Your task to perform on an android device: Open Youtube and go to "Your channel" Image 0: 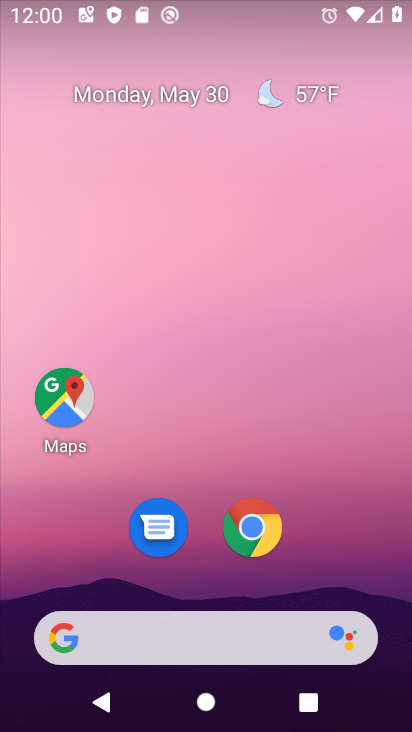
Step 0: drag from (220, 586) to (222, 73)
Your task to perform on an android device: Open Youtube and go to "Your channel" Image 1: 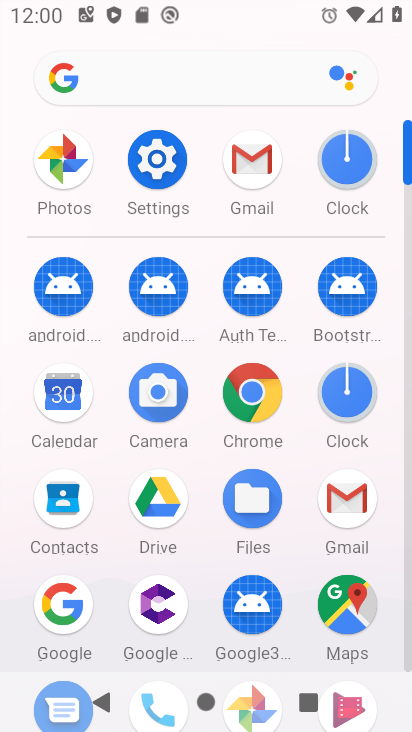
Step 1: drag from (204, 594) to (237, 243)
Your task to perform on an android device: Open Youtube and go to "Your channel" Image 2: 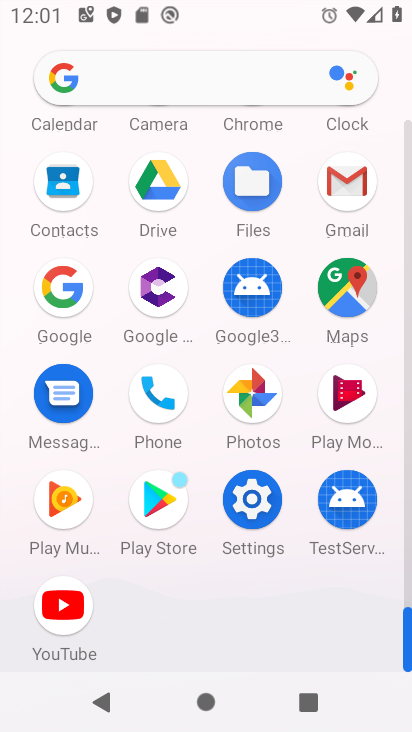
Step 2: click (64, 612)
Your task to perform on an android device: Open Youtube and go to "Your channel" Image 3: 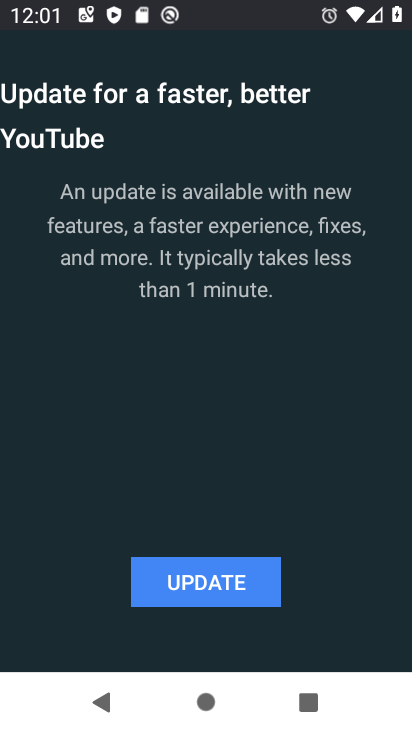
Step 3: click (242, 611)
Your task to perform on an android device: Open Youtube and go to "Your channel" Image 4: 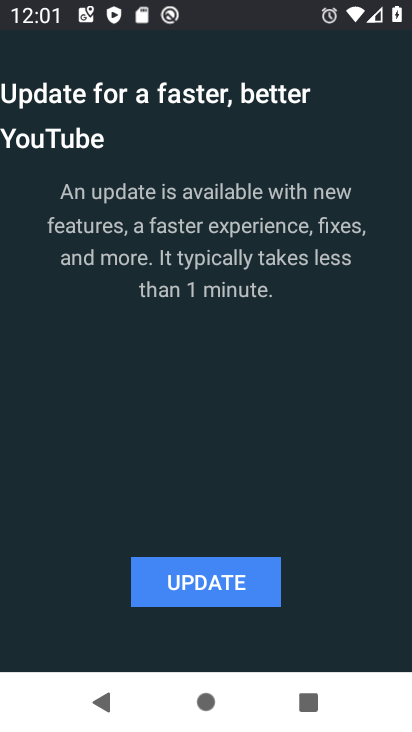
Step 4: click (226, 584)
Your task to perform on an android device: Open Youtube and go to "Your channel" Image 5: 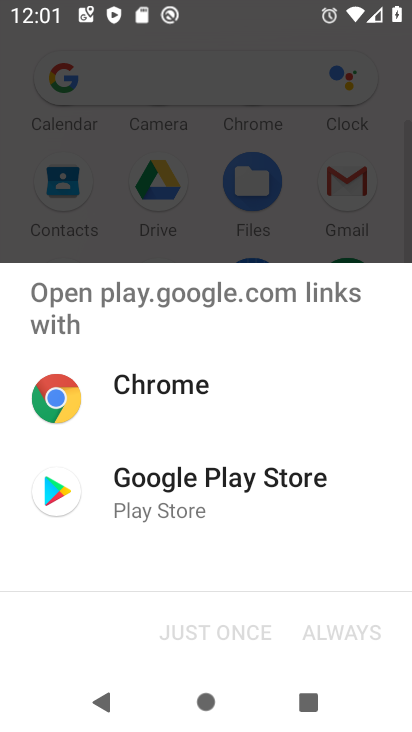
Step 5: click (167, 512)
Your task to perform on an android device: Open Youtube and go to "Your channel" Image 6: 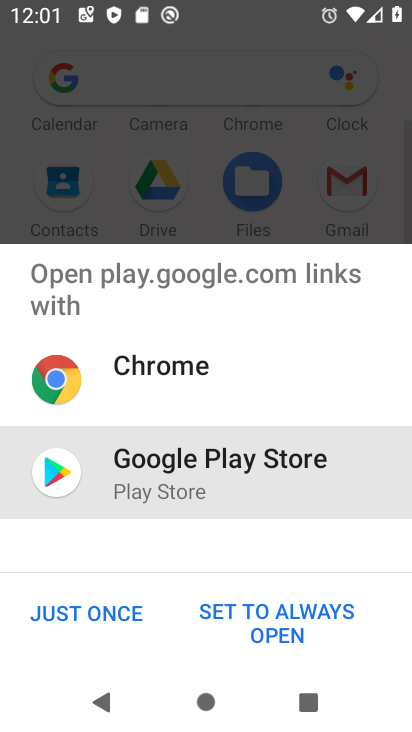
Step 6: click (167, 512)
Your task to perform on an android device: Open Youtube and go to "Your channel" Image 7: 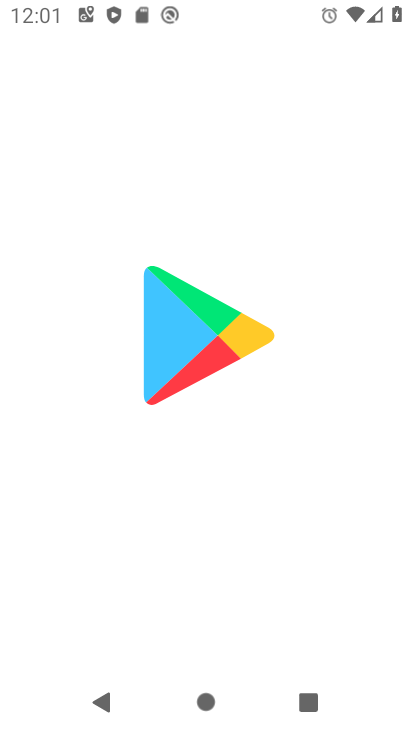
Step 7: click (113, 637)
Your task to perform on an android device: Open Youtube and go to "Your channel" Image 8: 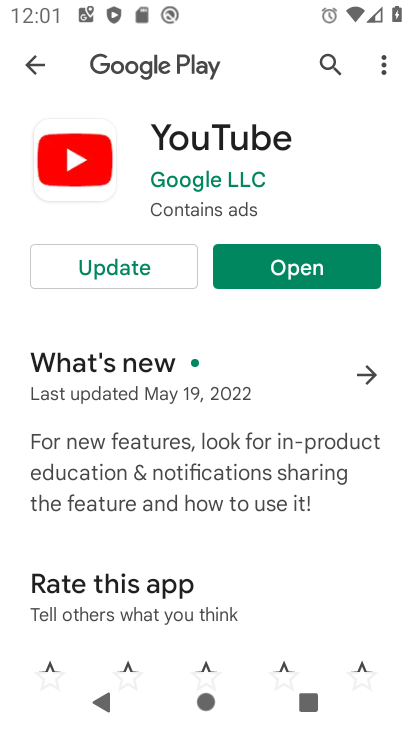
Step 8: click (336, 264)
Your task to perform on an android device: Open Youtube and go to "Your channel" Image 9: 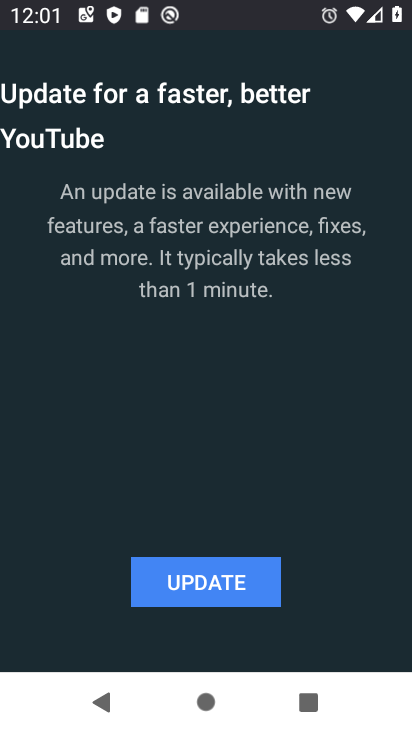
Step 9: click (237, 566)
Your task to perform on an android device: Open Youtube and go to "Your channel" Image 10: 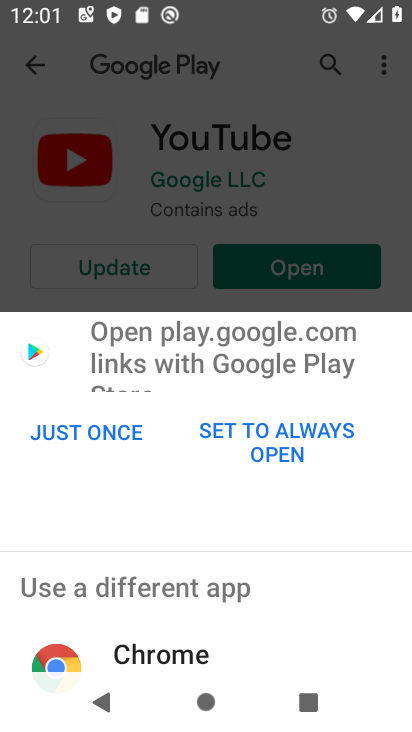
Step 10: click (110, 460)
Your task to perform on an android device: Open Youtube and go to "Your channel" Image 11: 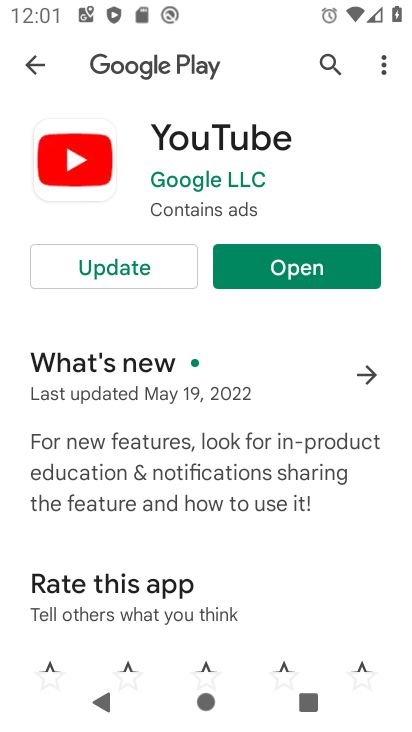
Step 11: click (96, 275)
Your task to perform on an android device: Open Youtube and go to "Your channel" Image 12: 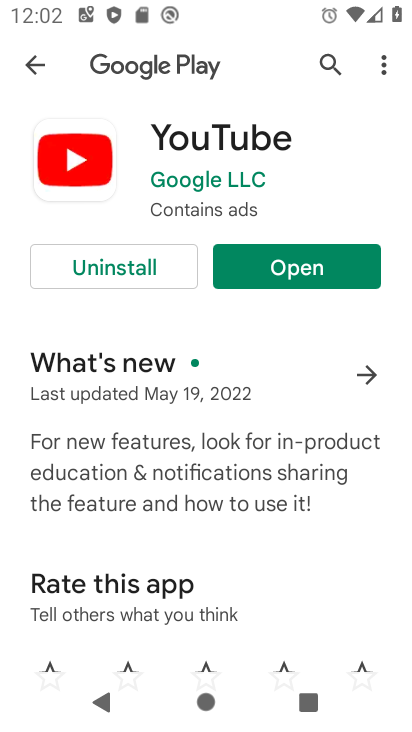
Step 12: click (295, 256)
Your task to perform on an android device: Open Youtube and go to "Your channel" Image 13: 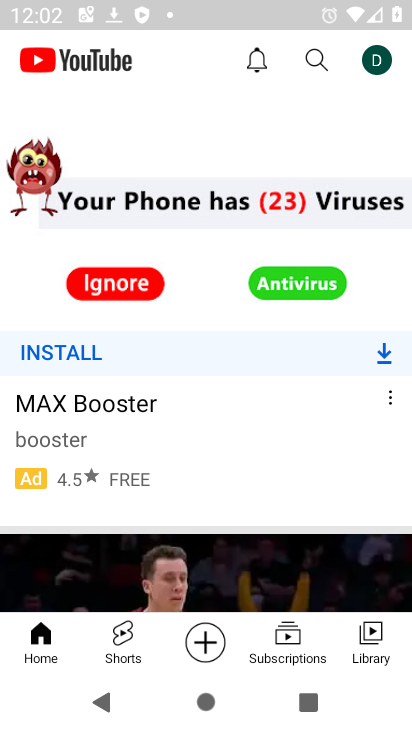
Step 13: click (331, 76)
Your task to perform on an android device: Open Youtube and go to "Your channel" Image 14: 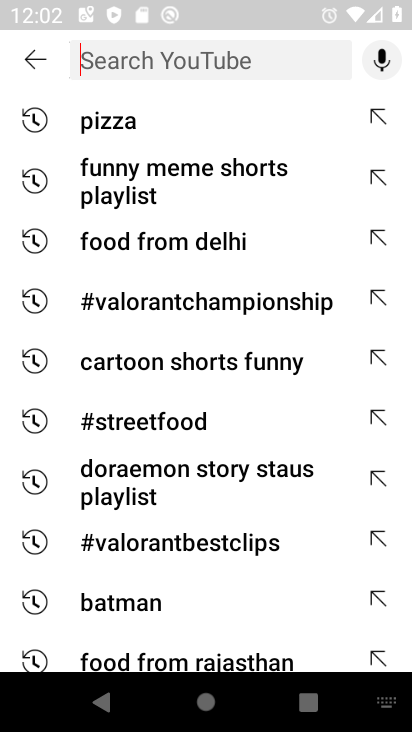
Step 14: type "your channel"
Your task to perform on an android device: Open Youtube and go to "Your channel" Image 15: 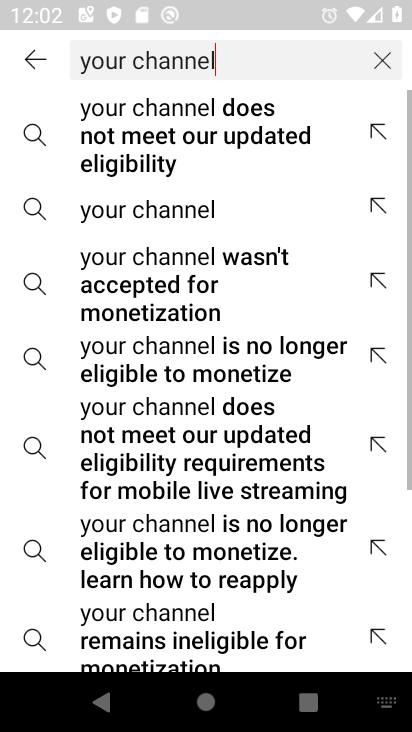
Step 15: type ""
Your task to perform on an android device: Open Youtube and go to "Your channel" Image 16: 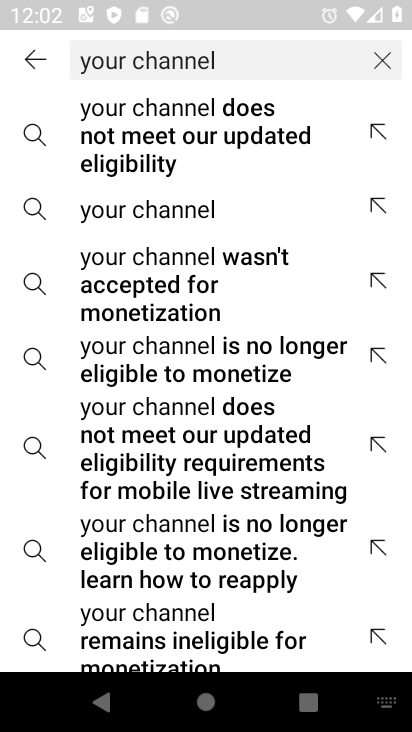
Step 16: click (234, 222)
Your task to perform on an android device: Open Youtube and go to "Your channel" Image 17: 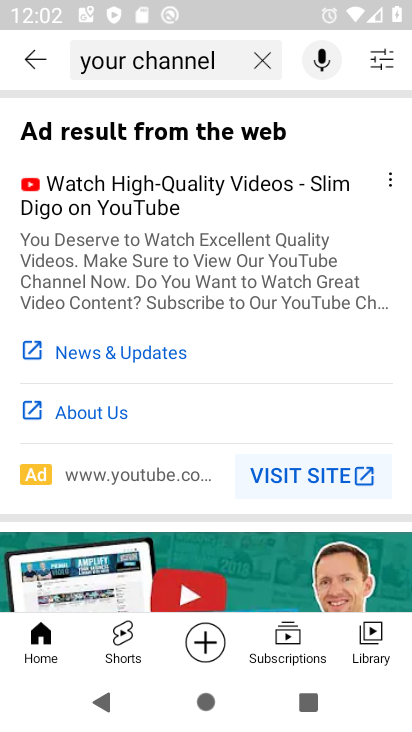
Step 17: task complete